Your task to perform on an android device: Open calendar and show me the second week of next month Image 0: 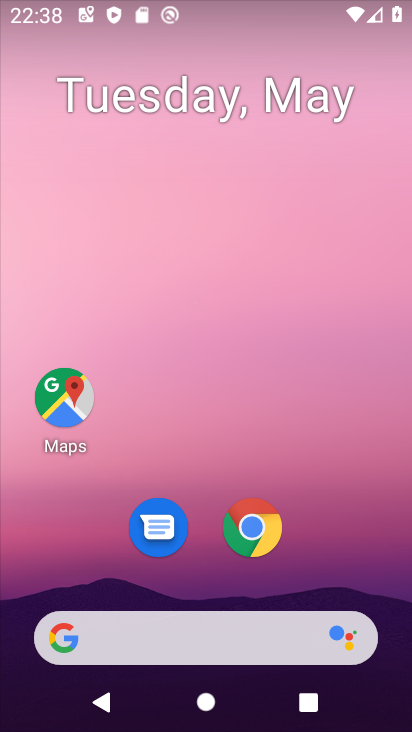
Step 0: drag from (199, 582) to (248, 193)
Your task to perform on an android device: Open calendar and show me the second week of next month Image 1: 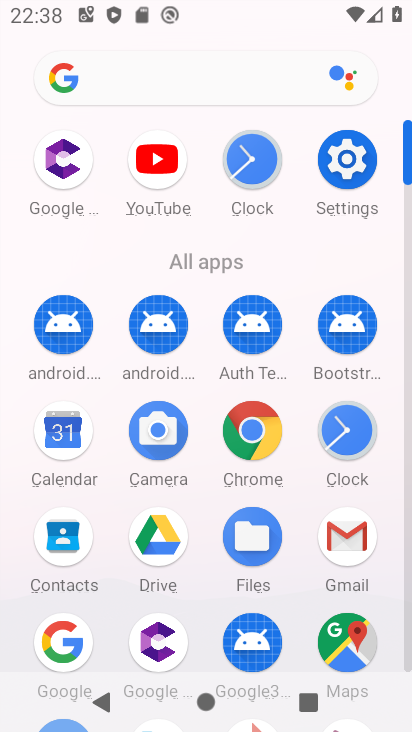
Step 1: click (96, 435)
Your task to perform on an android device: Open calendar and show me the second week of next month Image 2: 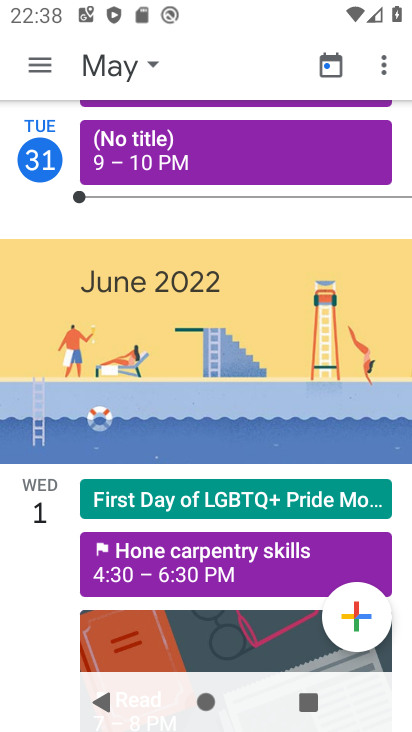
Step 2: click (144, 43)
Your task to perform on an android device: Open calendar and show me the second week of next month Image 3: 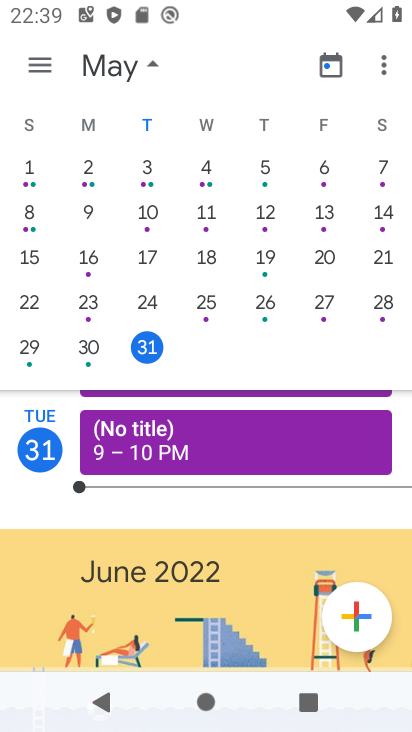
Step 3: drag from (369, 214) to (15, 710)
Your task to perform on an android device: Open calendar and show me the second week of next month Image 4: 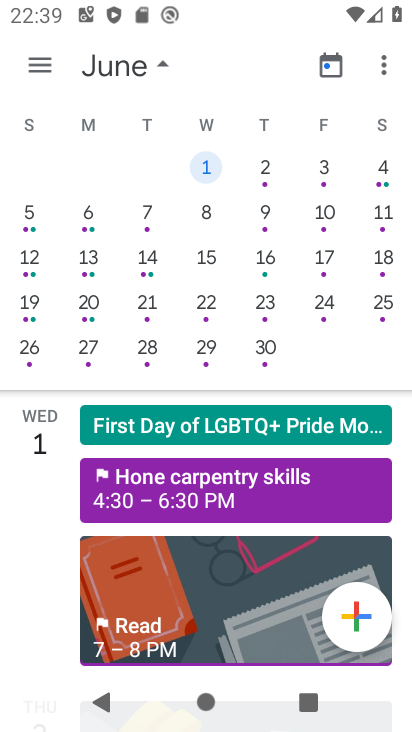
Step 4: drag from (354, 233) to (7, 346)
Your task to perform on an android device: Open calendar and show me the second week of next month Image 5: 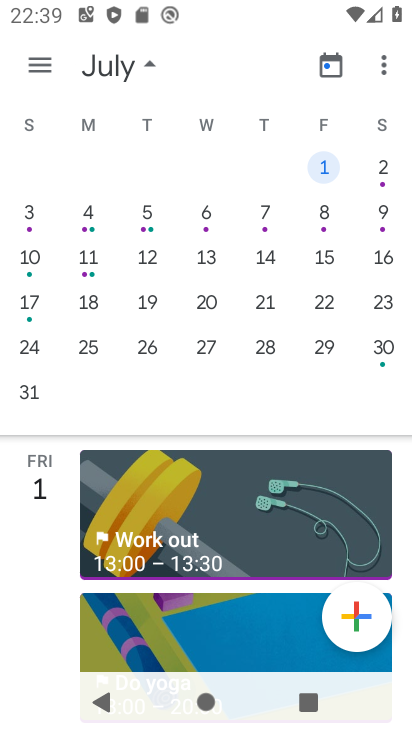
Step 5: click (211, 219)
Your task to perform on an android device: Open calendar and show me the second week of next month Image 6: 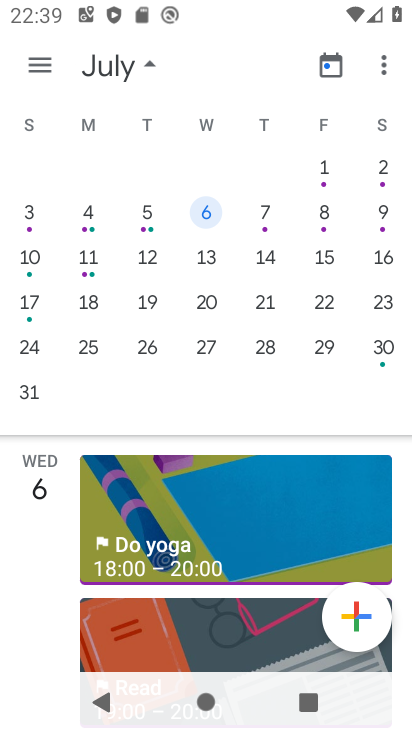
Step 6: click (256, 214)
Your task to perform on an android device: Open calendar and show me the second week of next month Image 7: 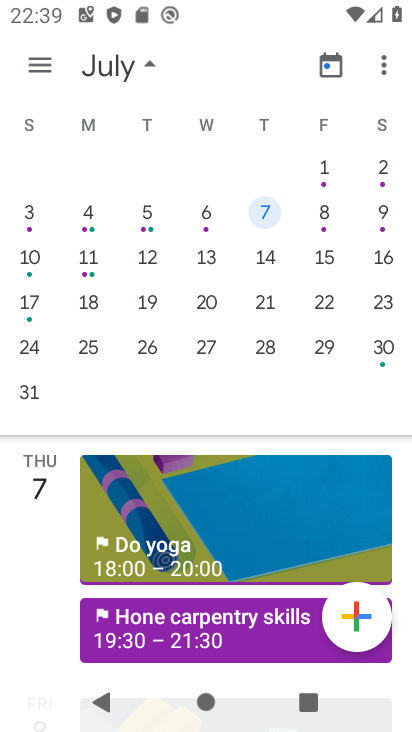
Step 7: task complete